Your task to perform on an android device: Search for vegetarian restaurants on Maps Image 0: 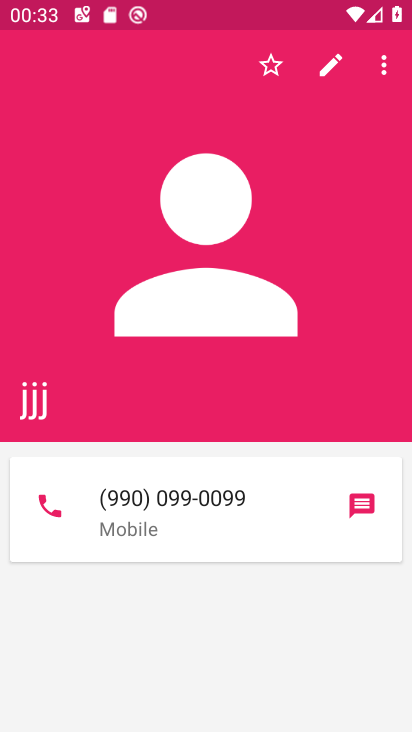
Step 0: press home button
Your task to perform on an android device: Search for vegetarian restaurants on Maps Image 1: 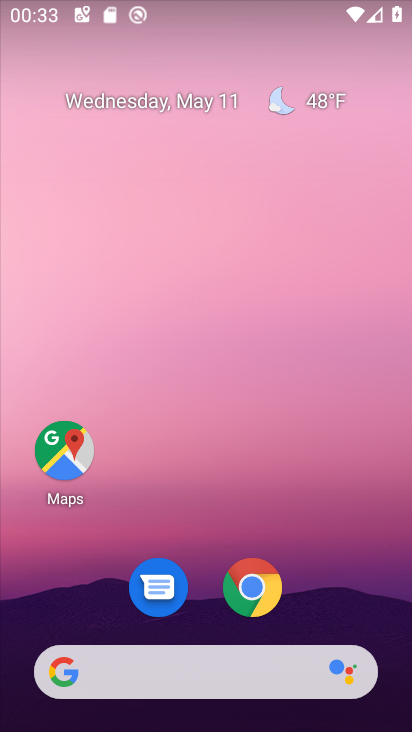
Step 1: click (70, 445)
Your task to perform on an android device: Search for vegetarian restaurants on Maps Image 2: 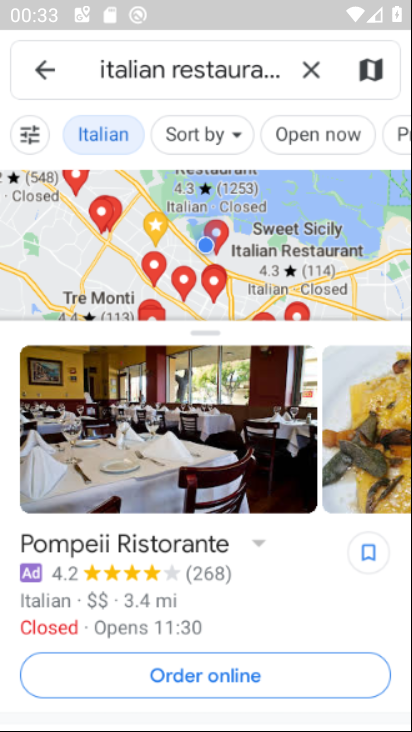
Step 2: click (70, 445)
Your task to perform on an android device: Search for vegetarian restaurants on Maps Image 3: 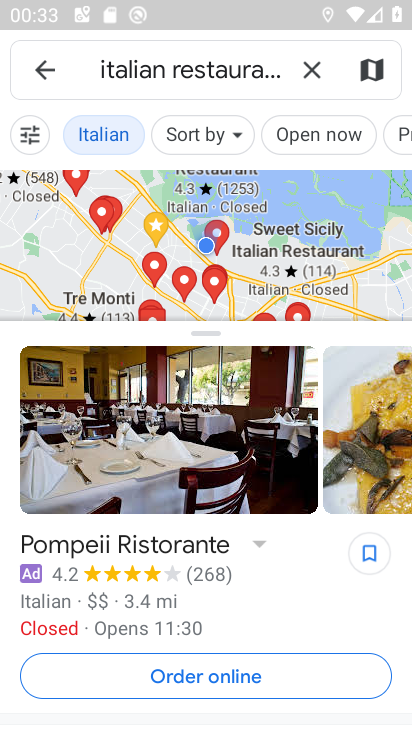
Step 3: click (317, 68)
Your task to perform on an android device: Search for vegetarian restaurants on Maps Image 4: 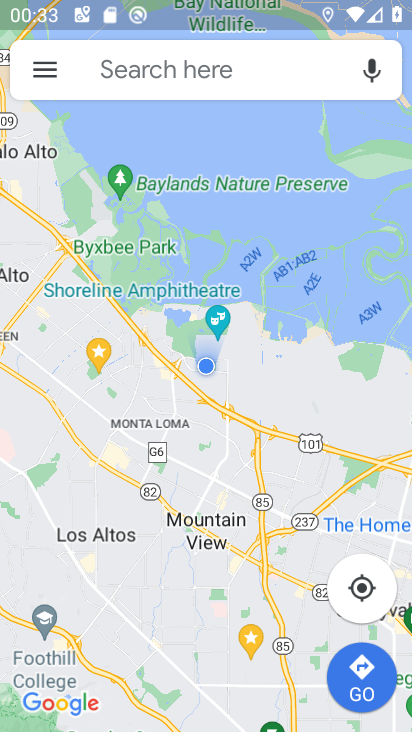
Step 4: click (227, 66)
Your task to perform on an android device: Search for vegetarian restaurants on Maps Image 5: 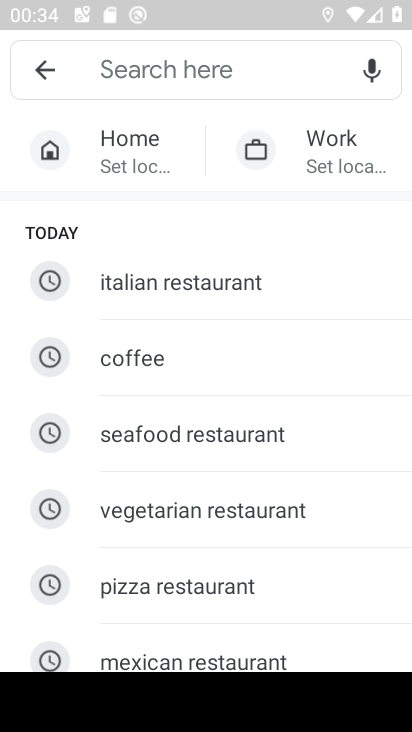
Step 5: click (266, 508)
Your task to perform on an android device: Search for vegetarian restaurants on Maps Image 6: 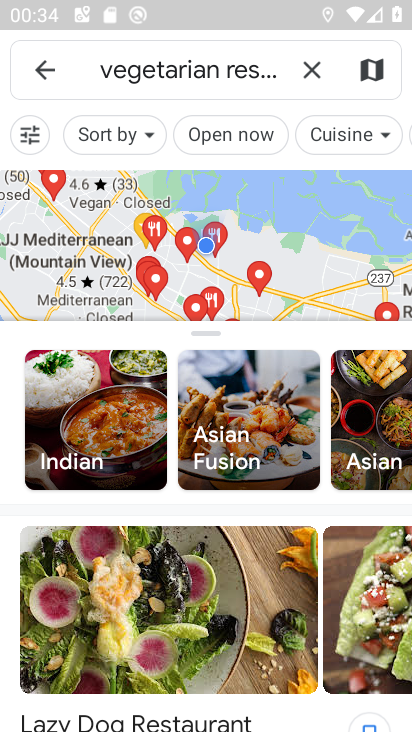
Step 6: task complete